Your task to perform on an android device: search for starred emails in the gmail app Image 0: 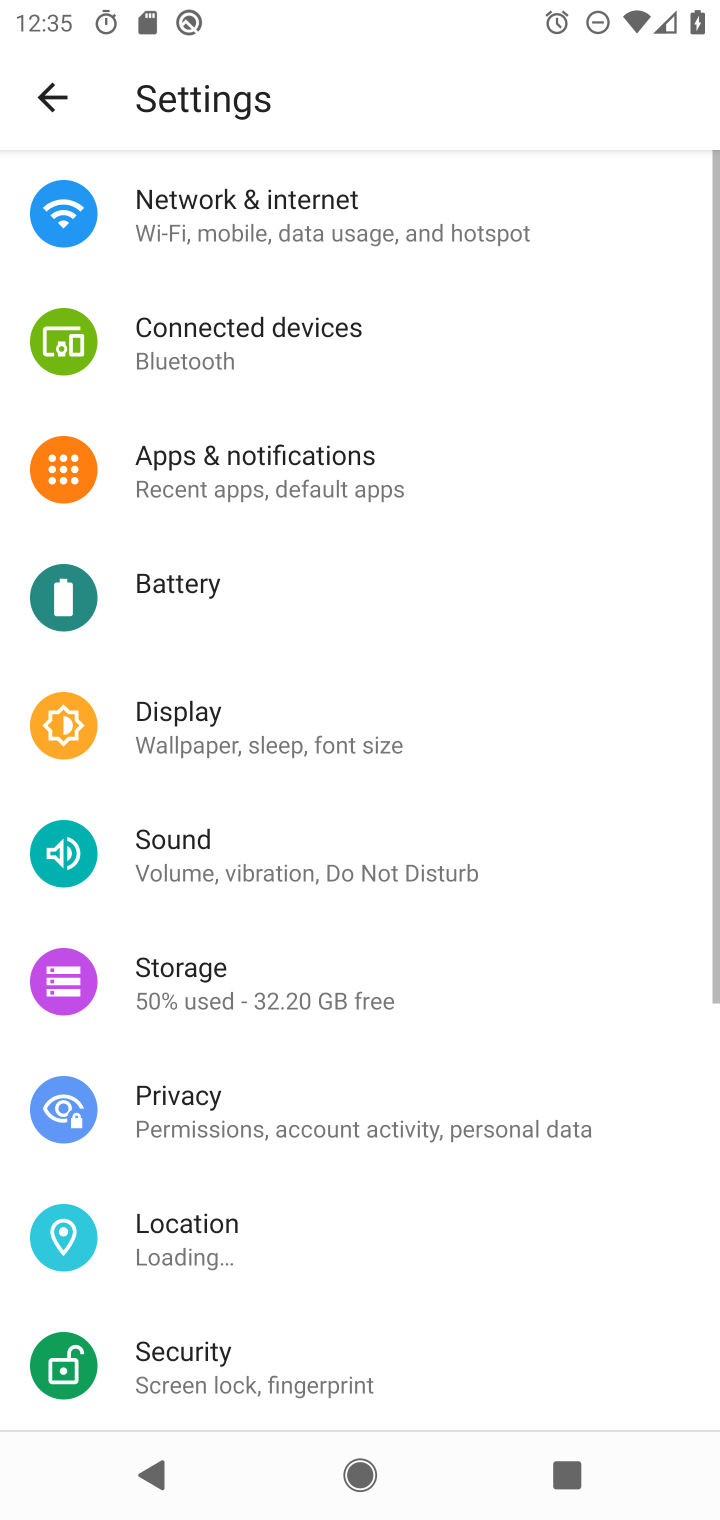
Step 0: press home button
Your task to perform on an android device: search for starred emails in the gmail app Image 1: 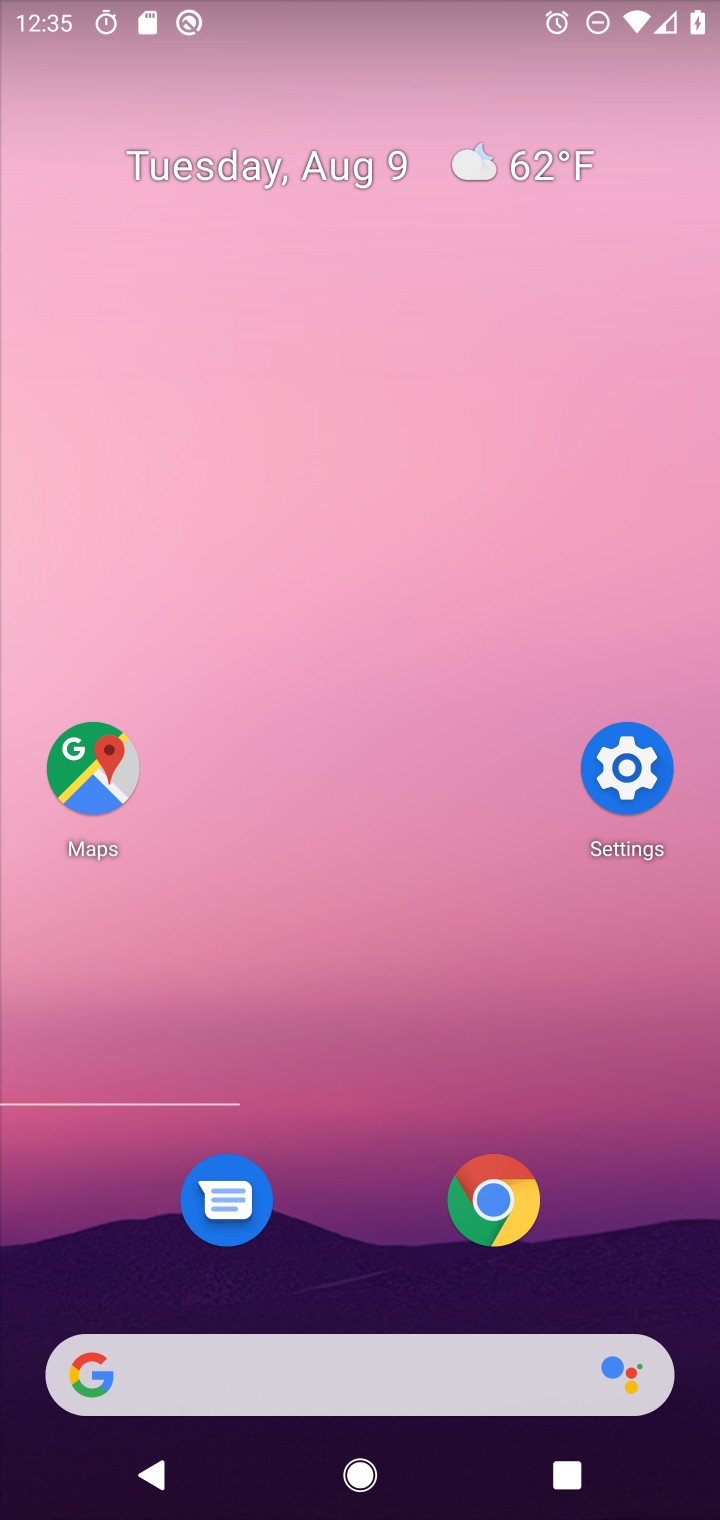
Step 1: drag from (369, 1371) to (495, 303)
Your task to perform on an android device: search for starred emails in the gmail app Image 2: 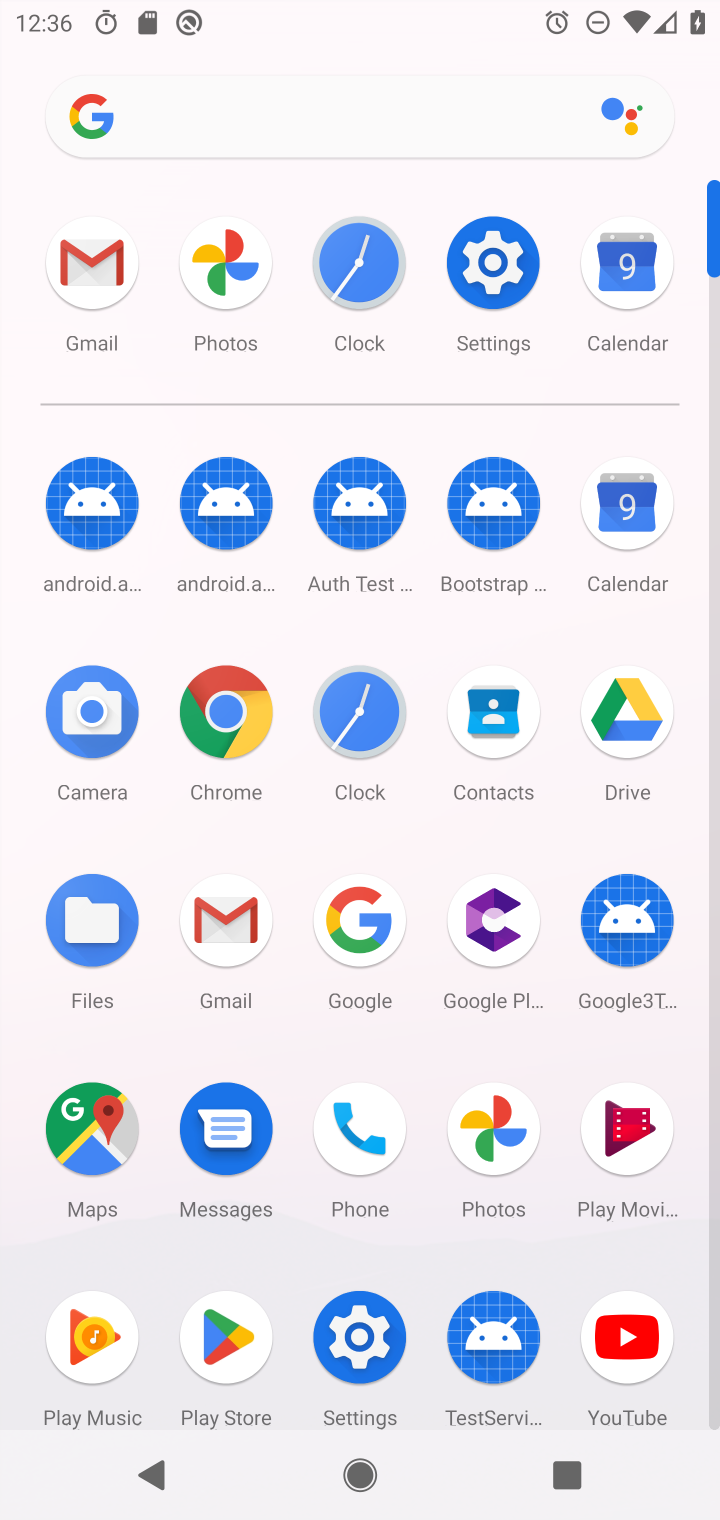
Step 2: click (82, 273)
Your task to perform on an android device: search for starred emails in the gmail app Image 3: 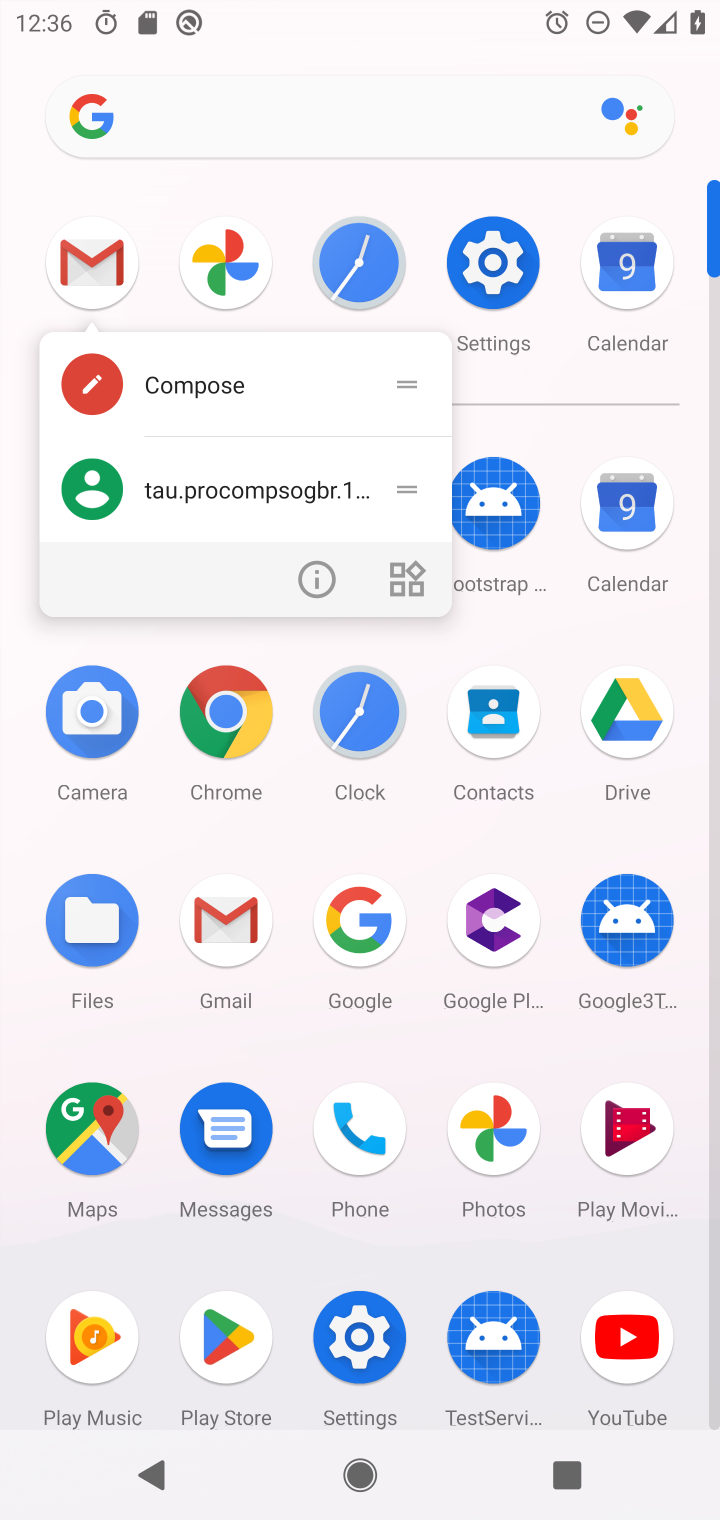
Step 3: click (92, 260)
Your task to perform on an android device: search for starred emails in the gmail app Image 4: 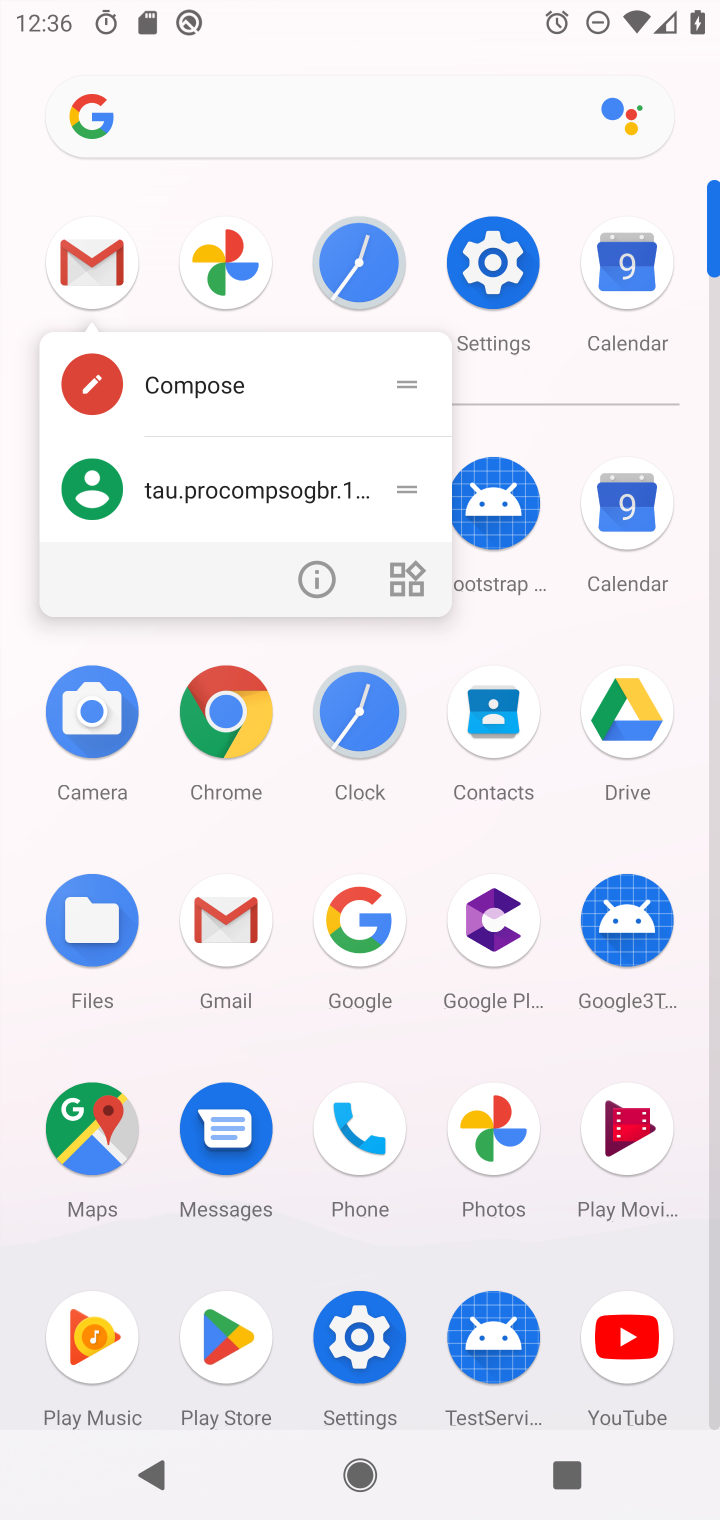
Step 4: click (92, 264)
Your task to perform on an android device: search for starred emails in the gmail app Image 5: 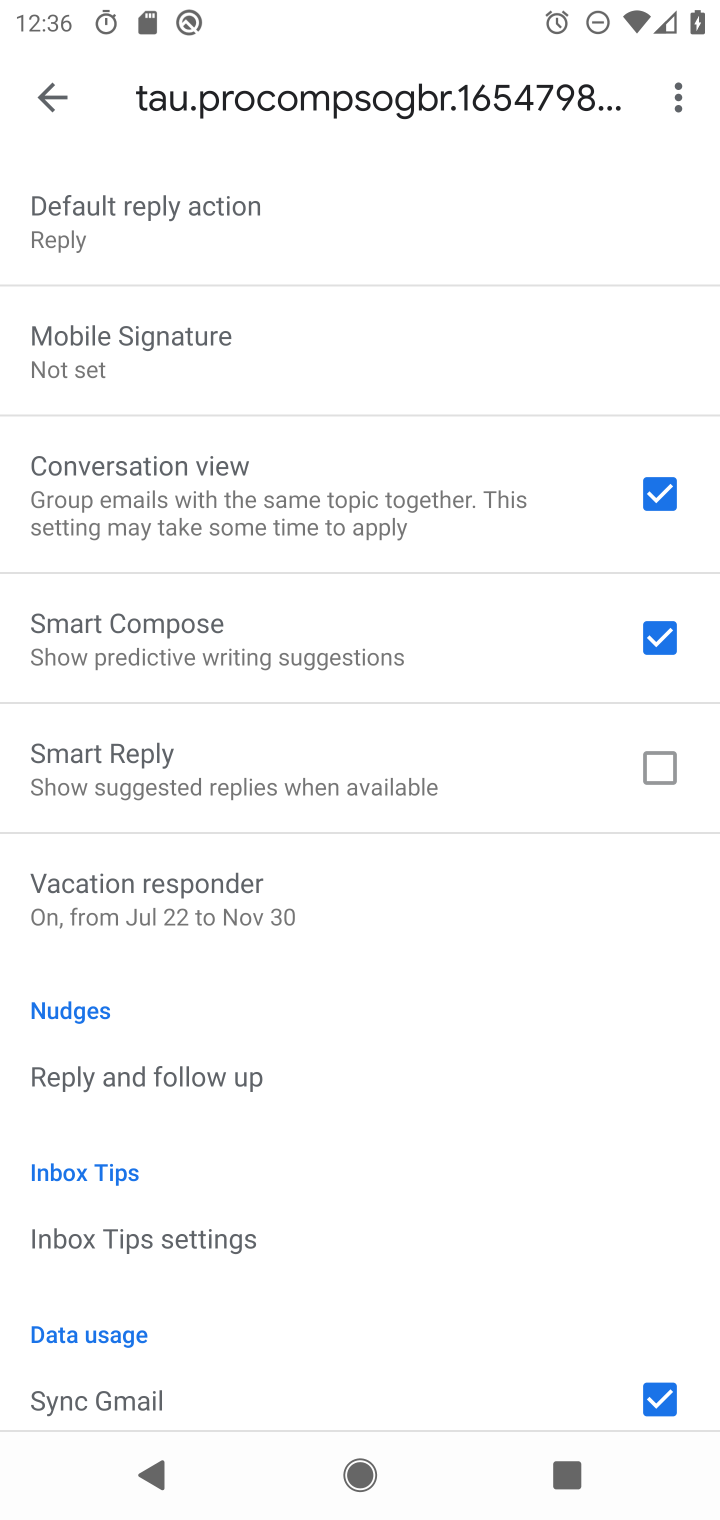
Step 5: drag from (541, 203) to (402, 1069)
Your task to perform on an android device: search for starred emails in the gmail app Image 6: 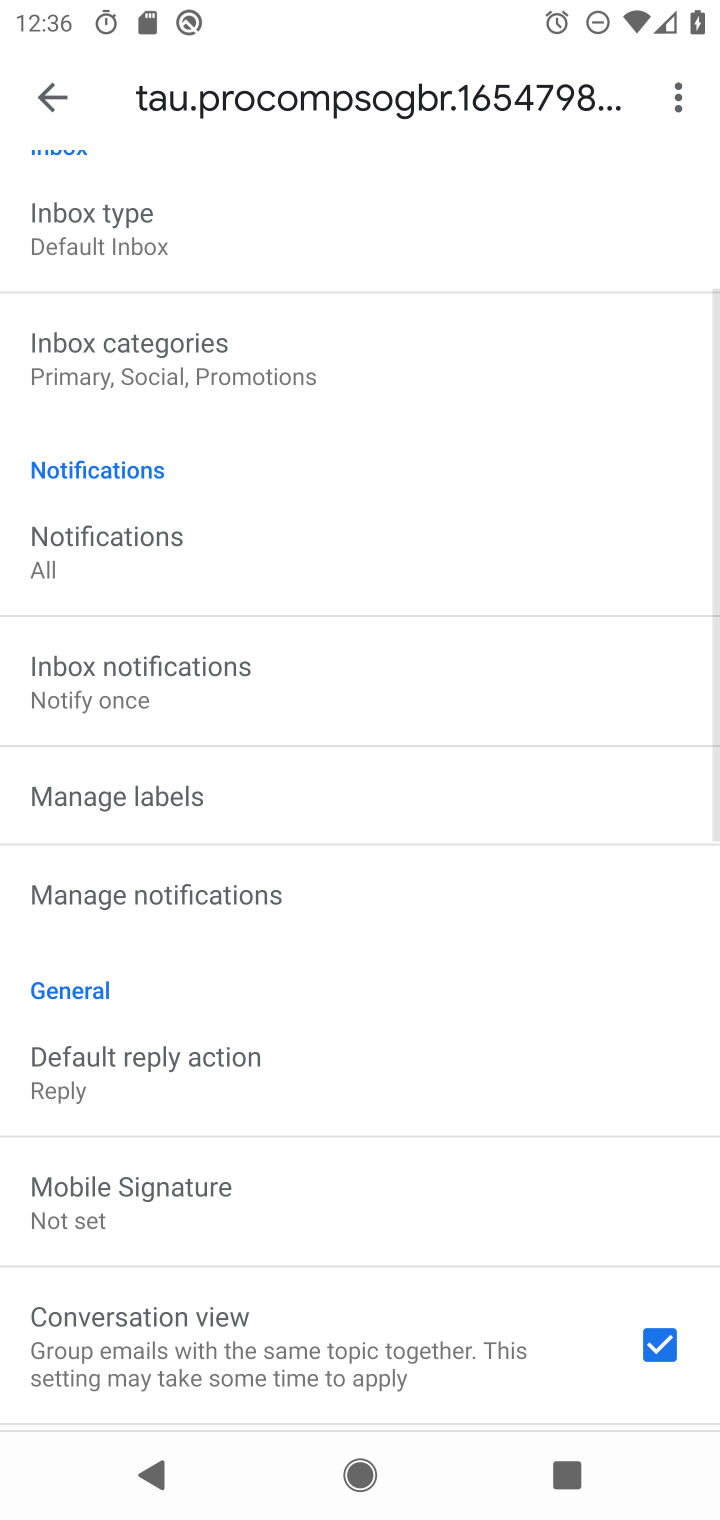
Step 6: click (54, 98)
Your task to perform on an android device: search for starred emails in the gmail app Image 7: 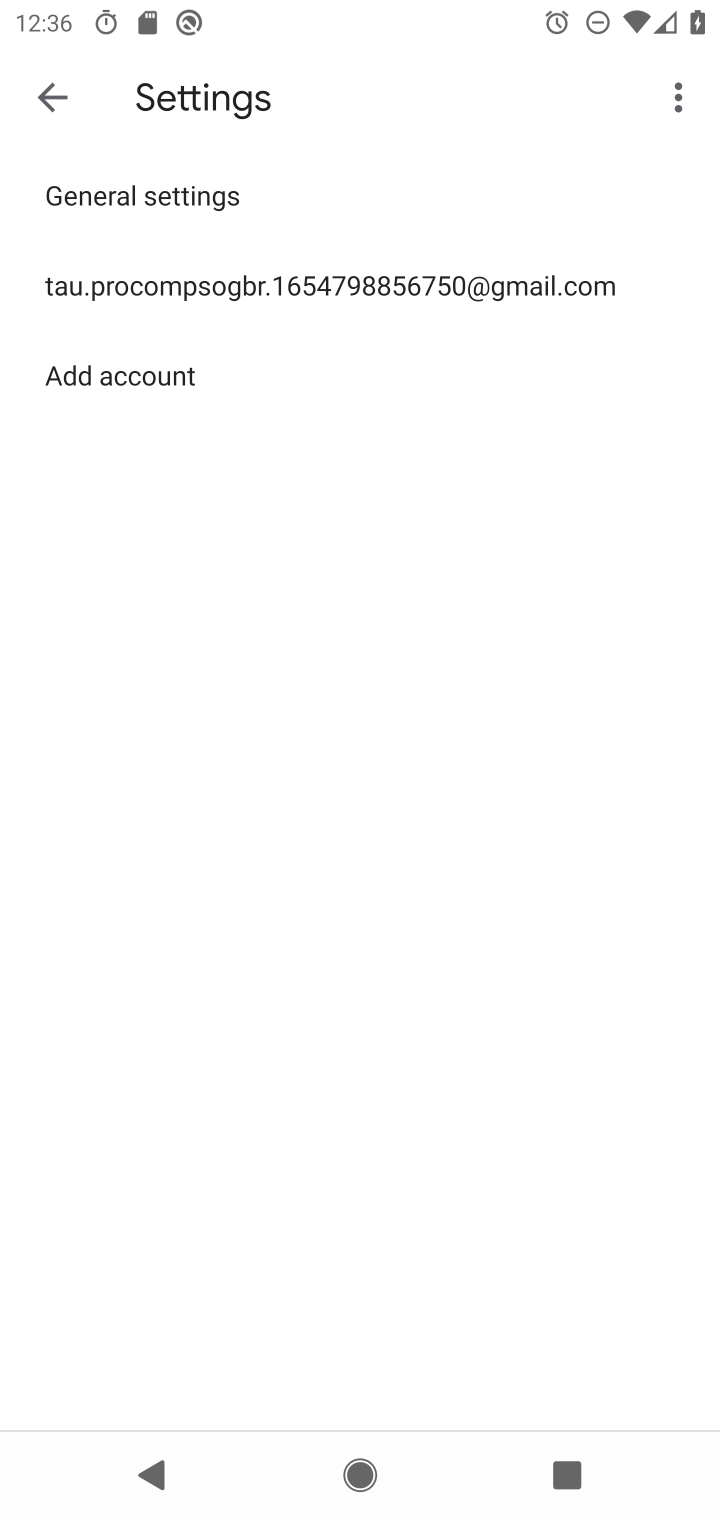
Step 7: click (54, 98)
Your task to perform on an android device: search for starred emails in the gmail app Image 8: 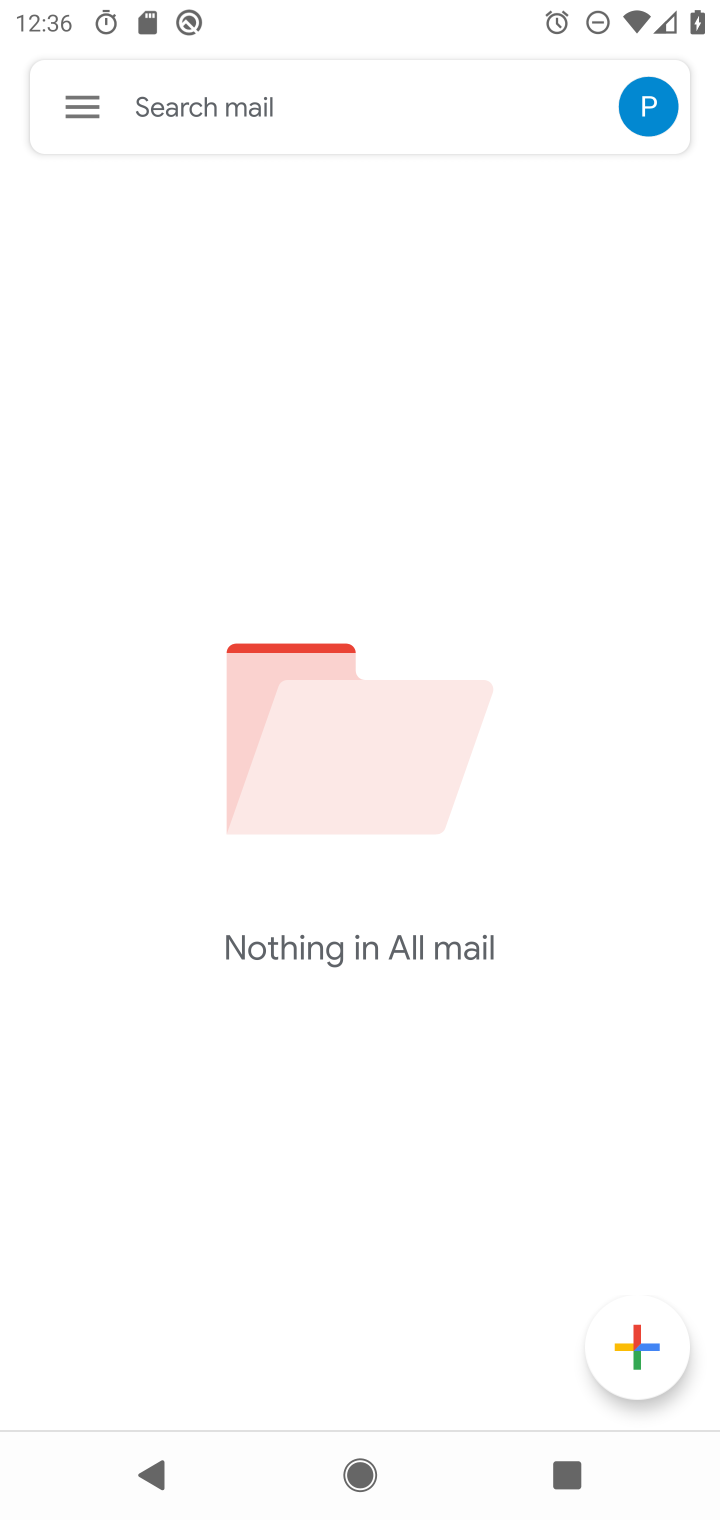
Step 8: click (78, 100)
Your task to perform on an android device: search for starred emails in the gmail app Image 9: 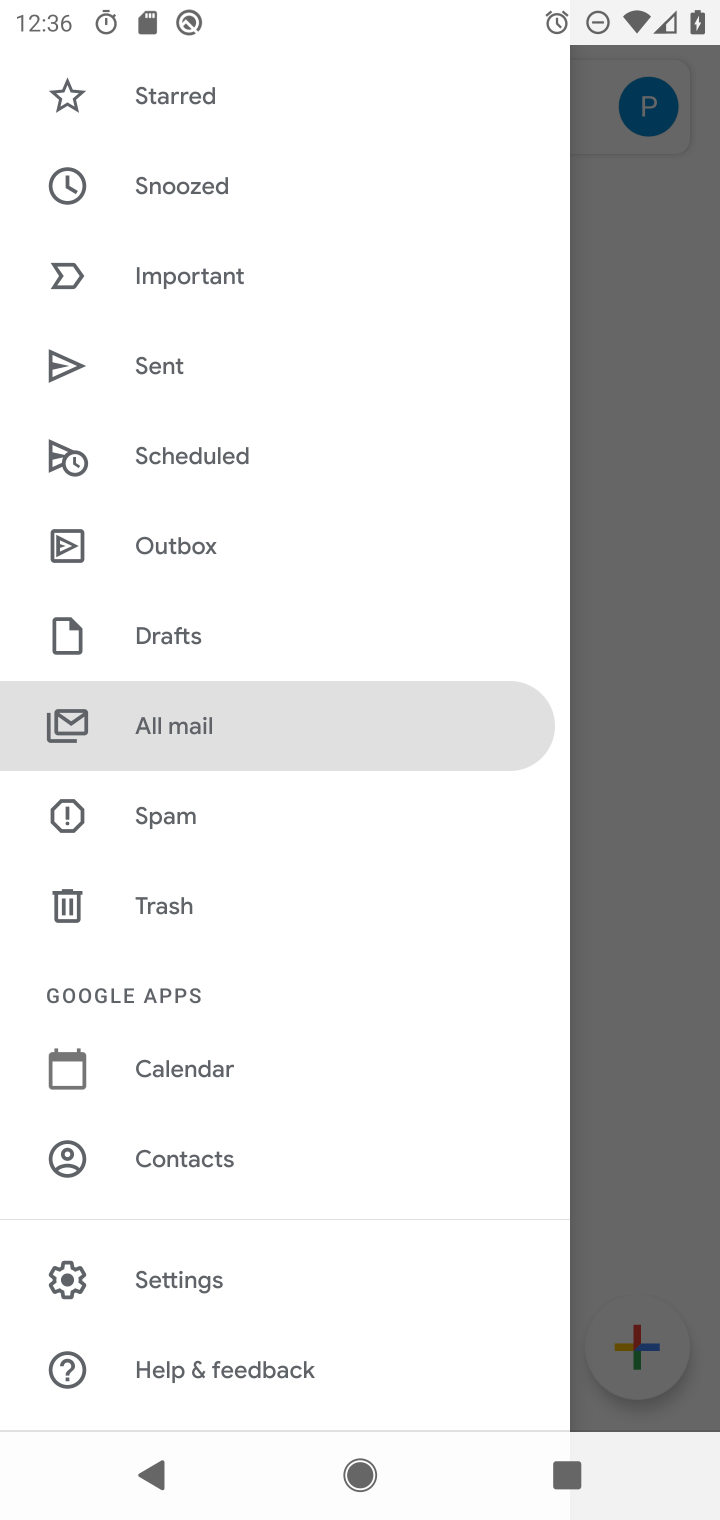
Step 9: click (181, 95)
Your task to perform on an android device: search for starred emails in the gmail app Image 10: 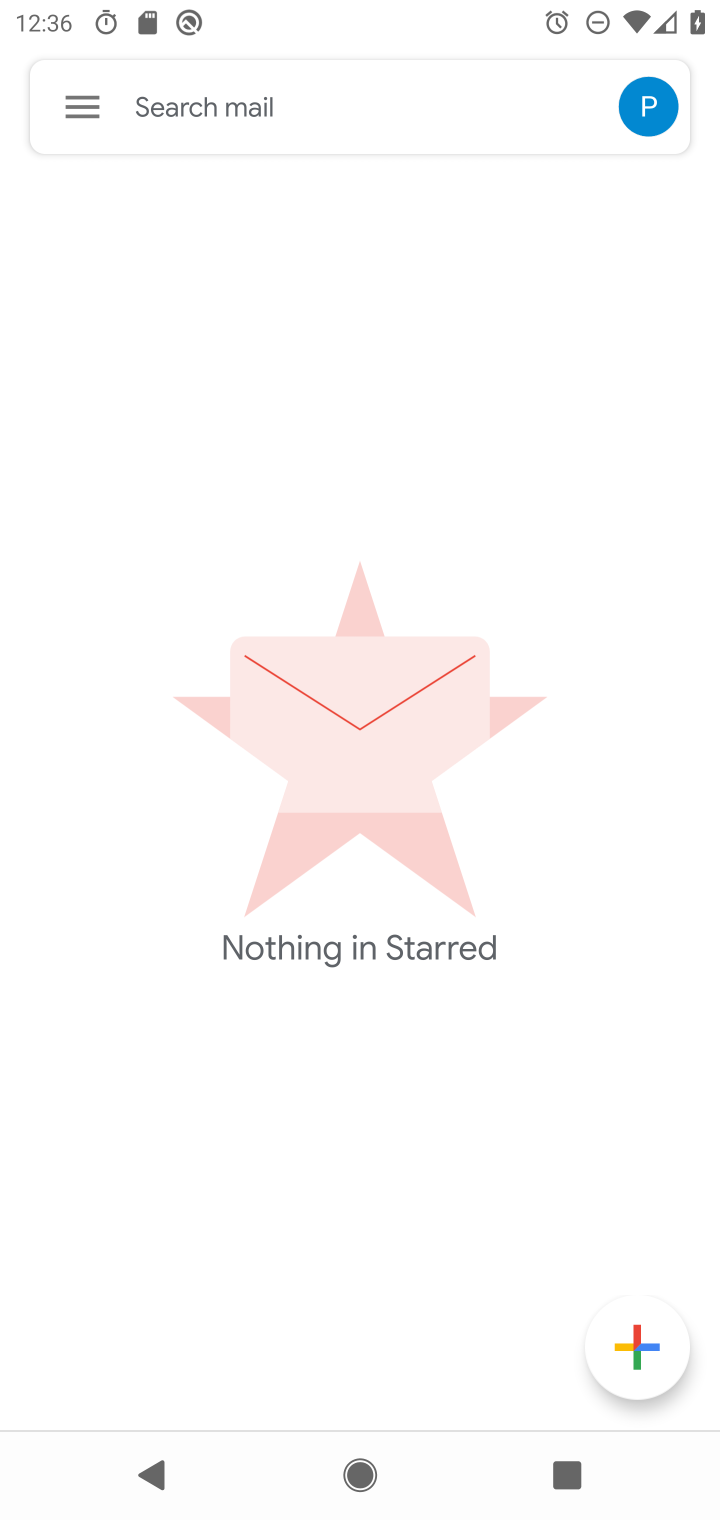
Step 10: task complete